Your task to perform on an android device: change keyboard looks Image 0: 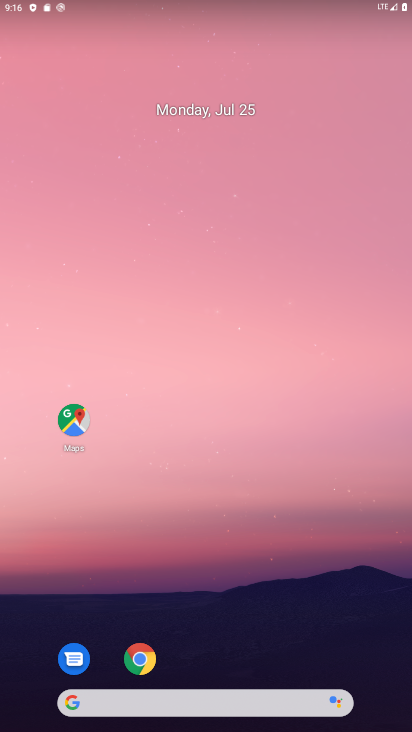
Step 0: drag from (202, 596) to (221, 326)
Your task to perform on an android device: change keyboard looks Image 1: 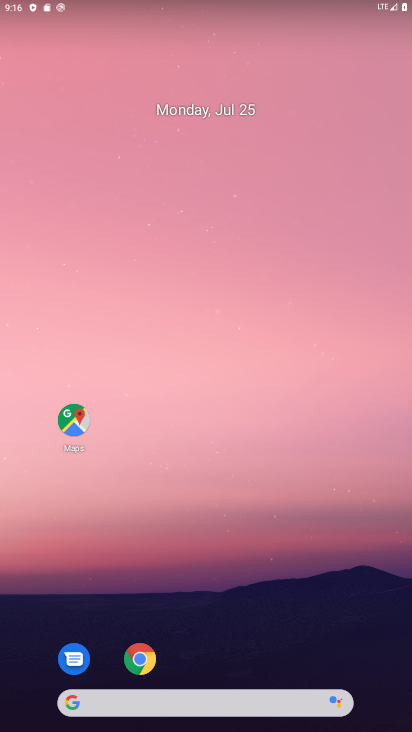
Step 1: drag from (192, 680) to (180, 6)
Your task to perform on an android device: change keyboard looks Image 2: 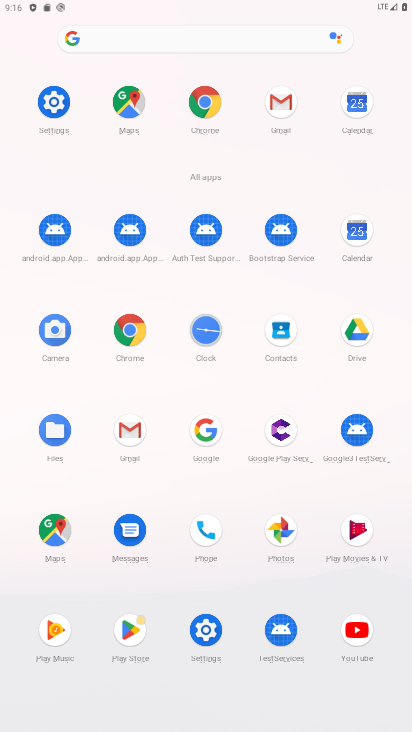
Step 2: click (206, 650)
Your task to perform on an android device: change keyboard looks Image 3: 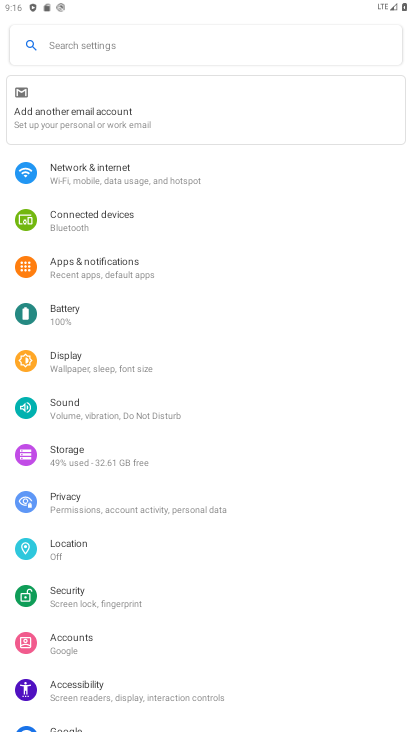
Step 3: drag from (137, 653) to (141, 104)
Your task to perform on an android device: change keyboard looks Image 4: 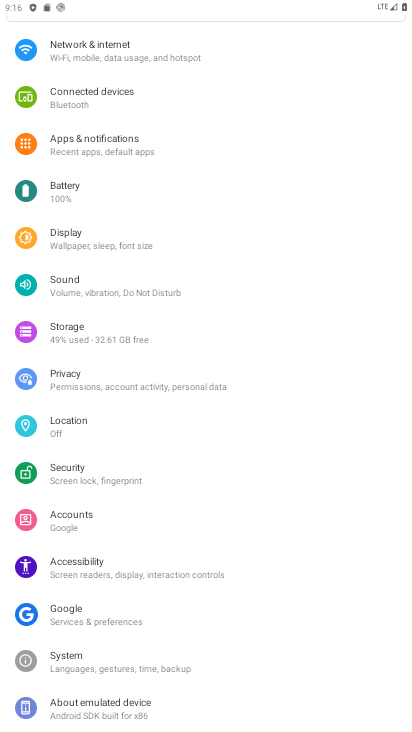
Step 4: click (71, 693)
Your task to perform on an android device: change keyboard looks Image 5: 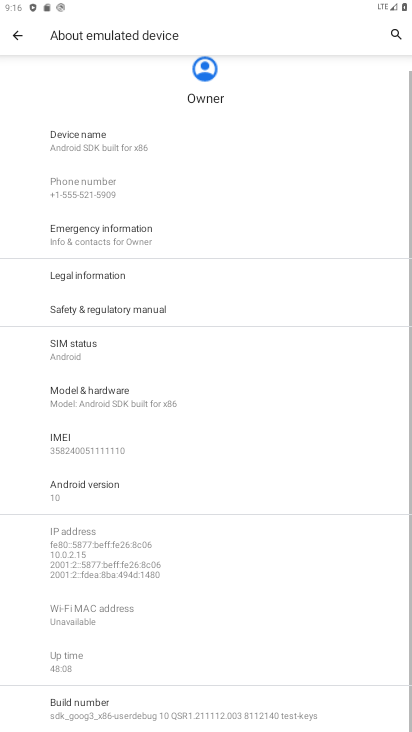
Step 5: click (11, 31)
Your task to perform on an android device: change keyboard looks Image 6: 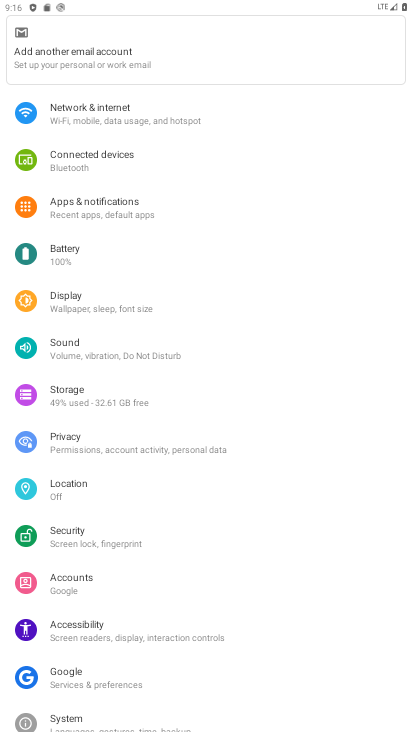
Step 6: drag from (105, 693) to (109, 600)
Your task to perform on an android device: change keyboard looks Image 7: 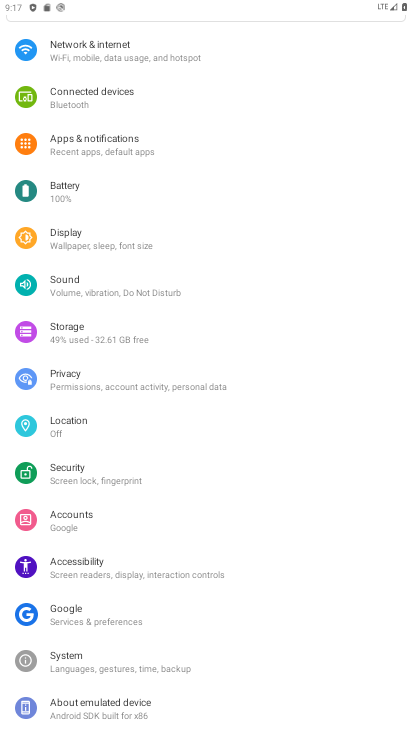
Step 7: click (94, 658)
Your task to perform on an android device: change keyboard looks Image 8: 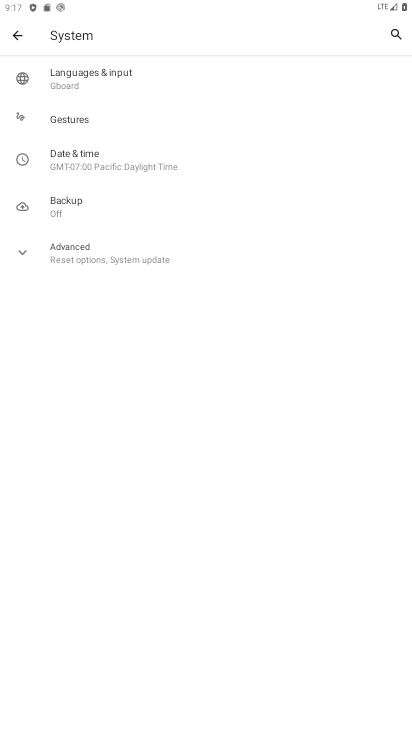
Step 8: click (100, 74)
Your task to perform on an android device: change keyboard looks Image 9: 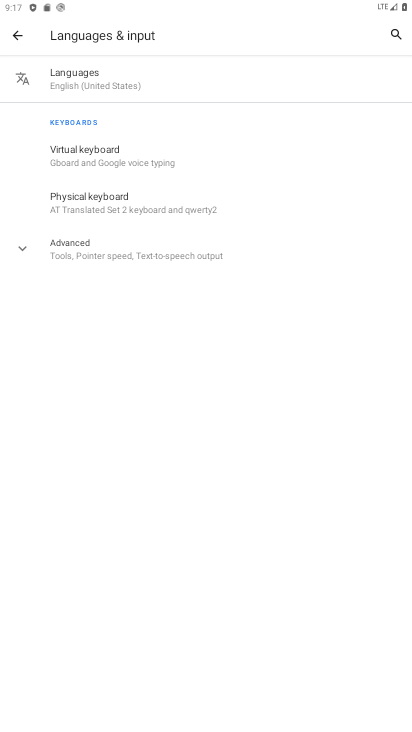
Step 9: click (107, 159)
Your task to perform on an android device: change keyboard looks Image 10: 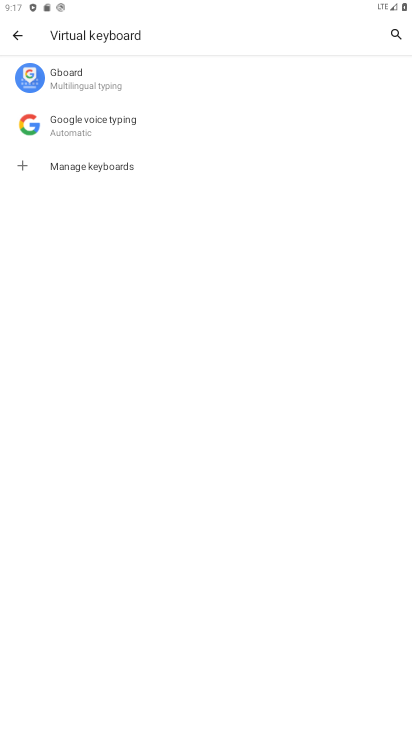
Step 10: click (100, 74)
Your task to perform on an android device: change keyboard looks Image 11: 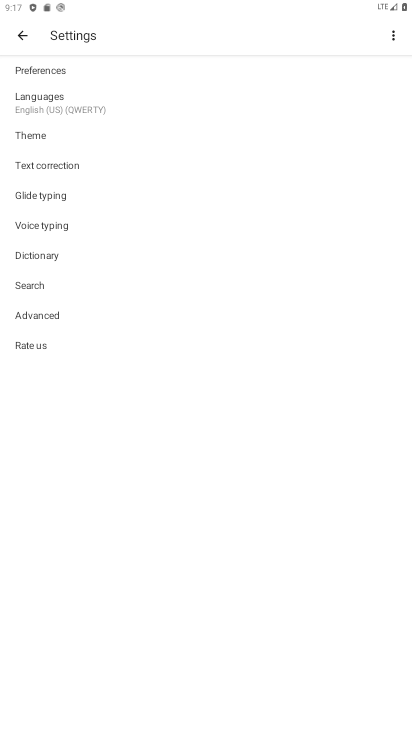
Step 11: click (25, 122)
Your task to perform on an android device: change keyboard looks Image 12: 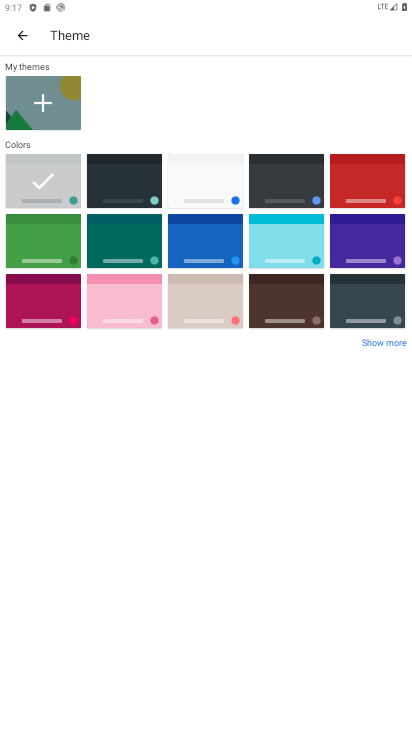
Step 12: click (130, 168)
Your task to perform on an android device: change keyboard looks Image 13: 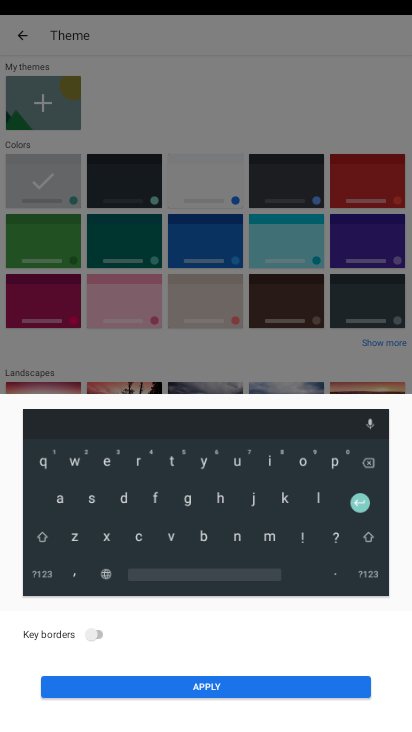
Step 13: click (260, 690)
Your task to perform on an android device: change keyboard looks Image 14: 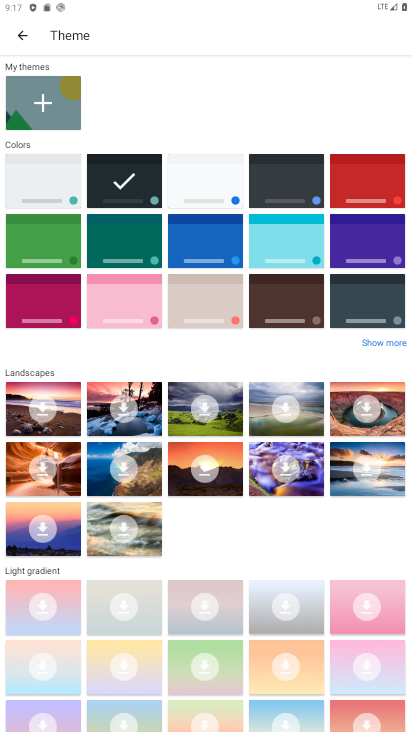
Step 14: task complete